Your task to perform on an android device: Open network settings Image 0: 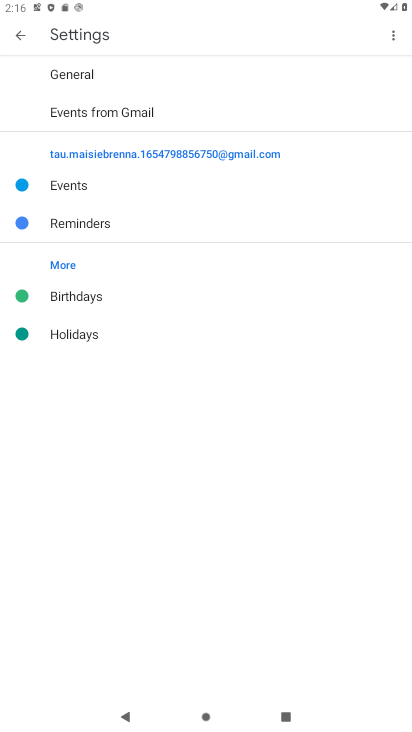
Step 0: press home button
Your task to perform on an android device: Open network settings Image 1: 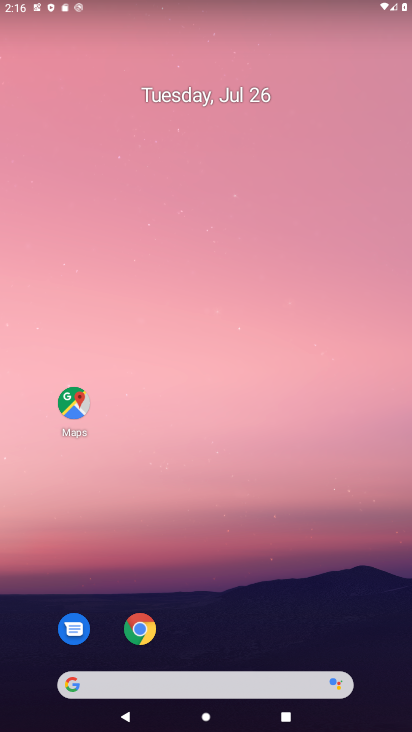
Step 1: drag from (242, 620) to (216, 240)
Your task to perform on an android device: Open network settings Image 2: 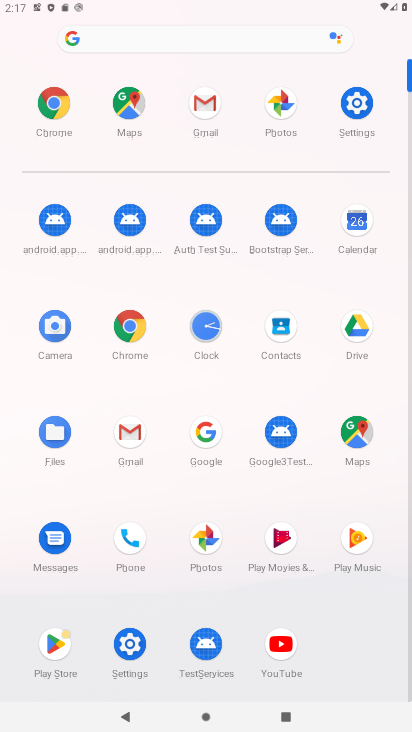
Step 2: click (332, 112)
Your task to perform on an android device: Open network settings Image 3: 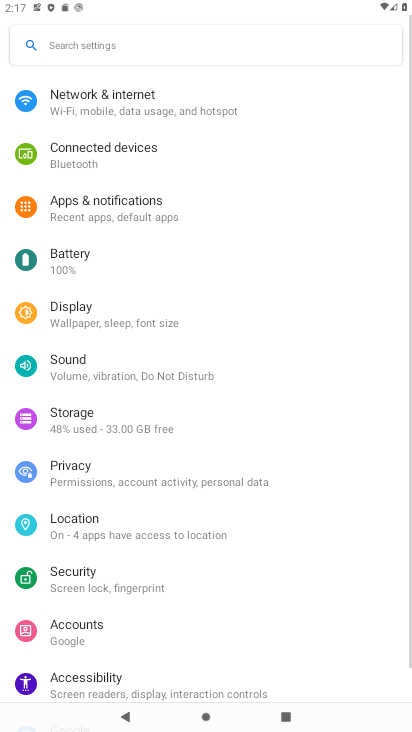
Step 3: click (173, 188)
Your task to perform on an android device: Open network settings Image 4: 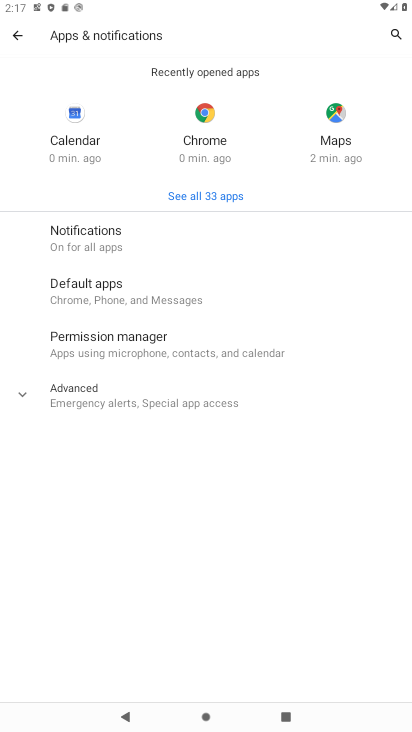
Step 4: task complete